Your task to perform on an android device: all mails in gmail Image 0: 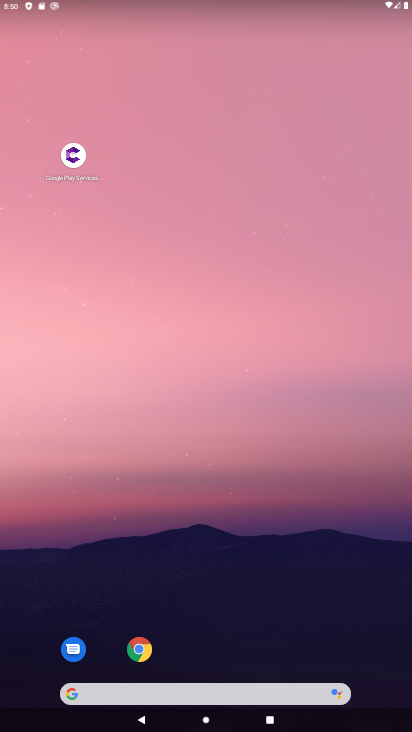
Step 0: drag from (372, 593) to (252, 80)
Your task to perform on an android device: all mails in gmail Image 1: 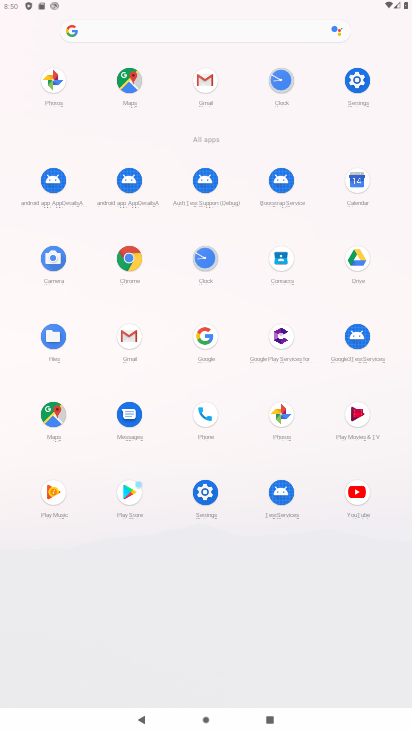
Step 1: click (124, 333)
Your task to perform on an android device: all mails in gmail Image 2: 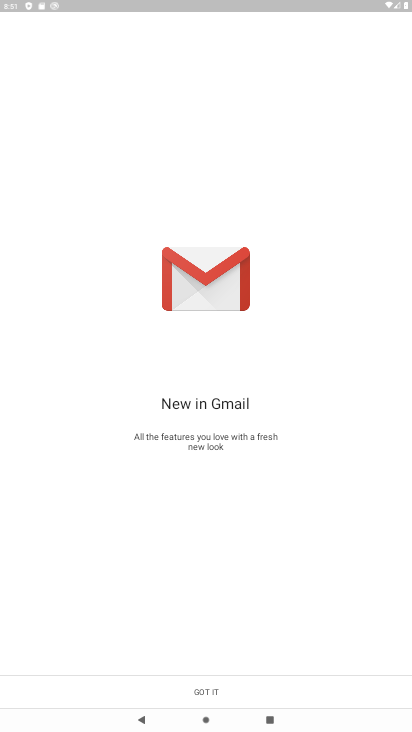
Step 2: click (212, 687)
Your task to perform on an android device: all mails in gmail Image 3: 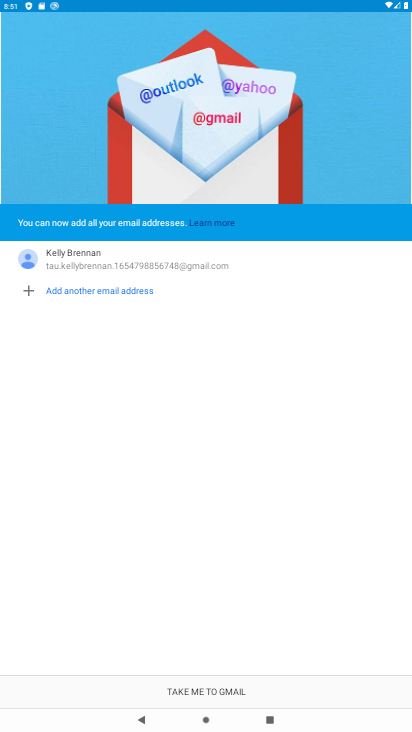
Step 3: click (244, 679)
Your task to perform on an android device: all mails in gmail Image 4: 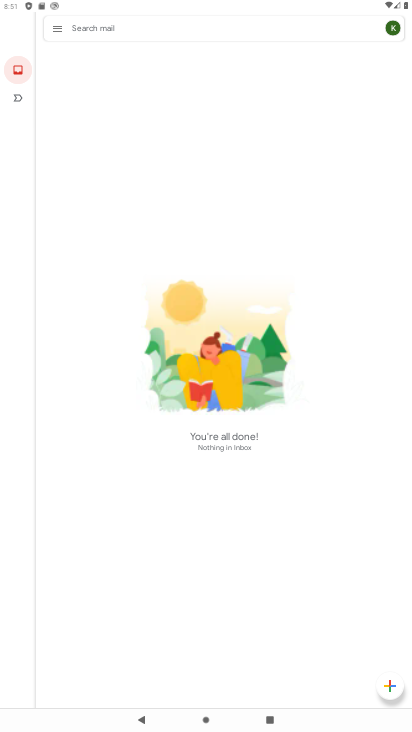
Step 4: click (57, 33)
Your task to perform on an android device: all mails in gmail Image 5: 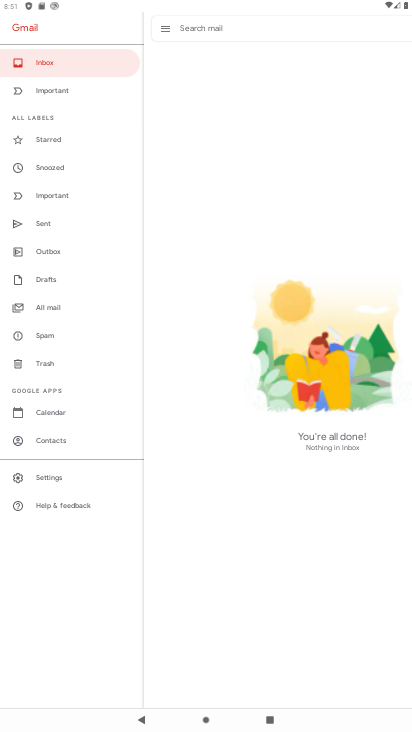
Step 5: click (65, 307)
Your task to perform on an android device: all mails in gmail Image 6: 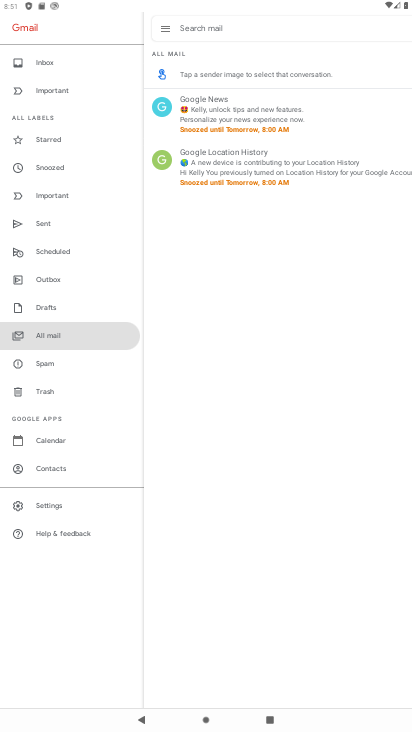
Step 6: task complete